Your task to perform on an android device: What's the weather going to be this weekend? Image 0: 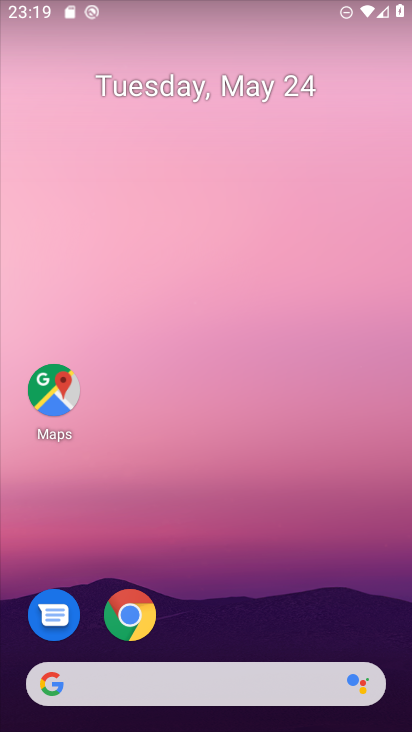
Step 0: drag from (252, 685) to (373, 10)
Your task to perform on an android device: What's the weather going to be this weekend? Image 1: 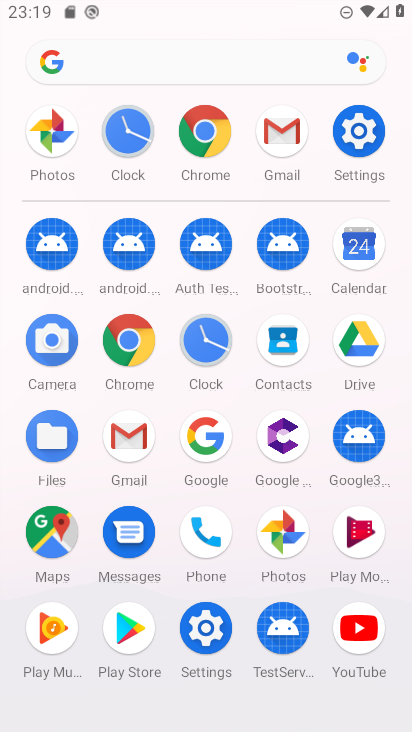
Step 1: click (354, 253)
Your task to perform on an android device: What's the weather going to be this weekend? Image 2: 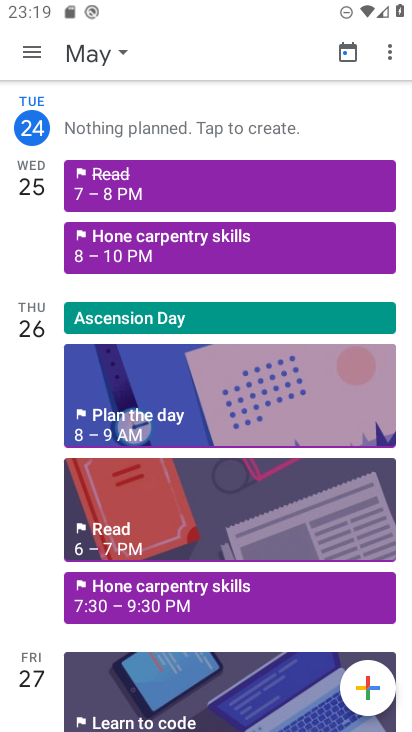
Step 2: press home button
Your task to perform on an android device: What's the weather going to be this weekend? Image 3: 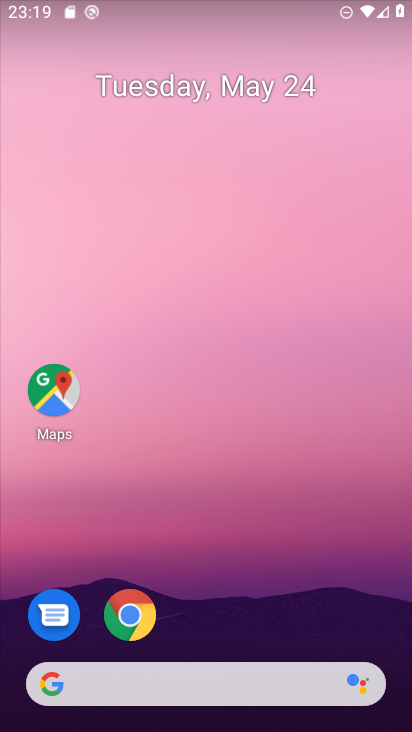
Step 3: click (173, 691)
Your task to perform on an android device: What's the weather going to be this weekend? Image 4: 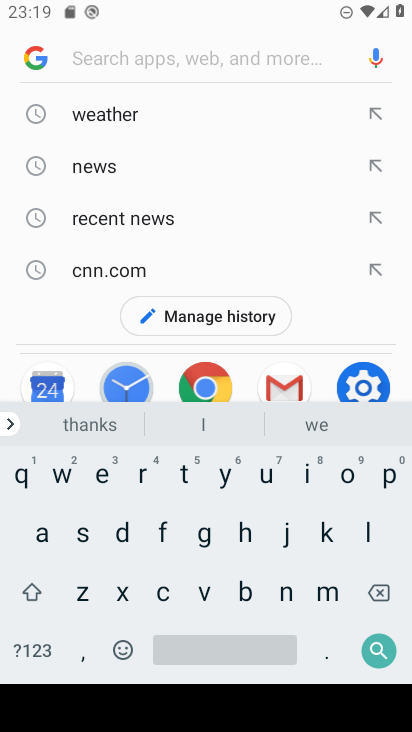
Step 4: click (137, 116)
Your task to perform on an android device: What's the weather going to be this weekend? Image 5: 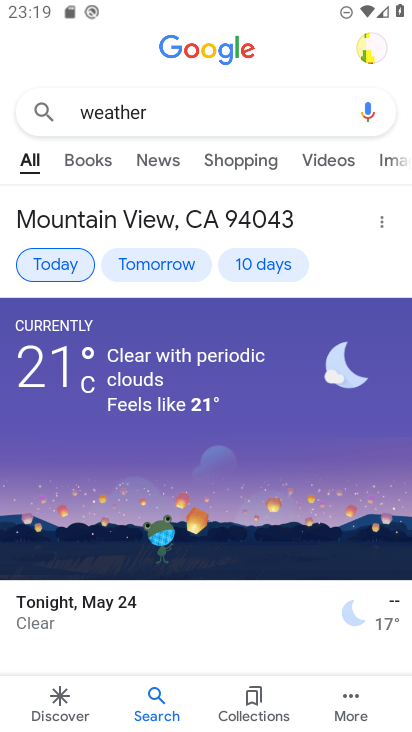
Step 5: click (260, 259)
Your task to perform on an android device: What's the weather going to be this weekend? Image 6: 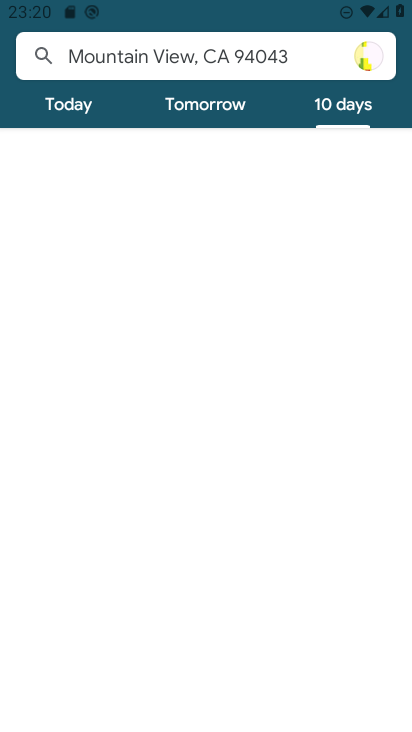
Step 6: task complete